Your task to perform on an android device: Go to Reddit.com Image 0: 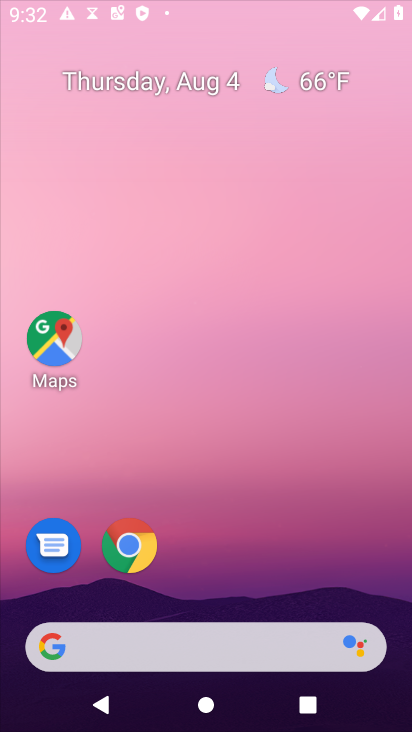
Step 0: press home button
Your task to perform on an android device: Go to Reddit.com Image 1: 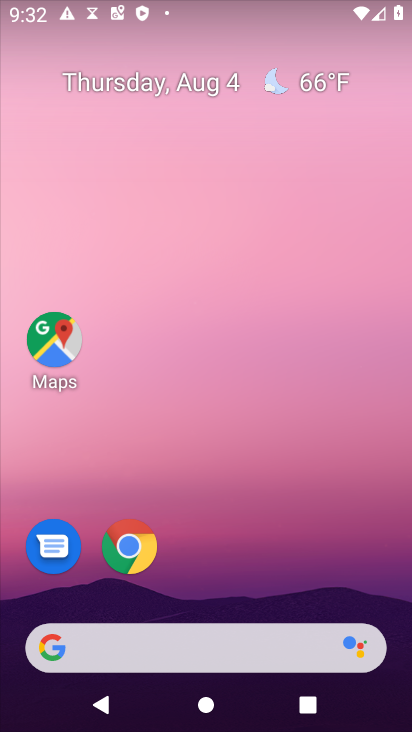
Step 1: click (42, 656)
Your task to perform on an android device: Go to Reddit.com Image 2: 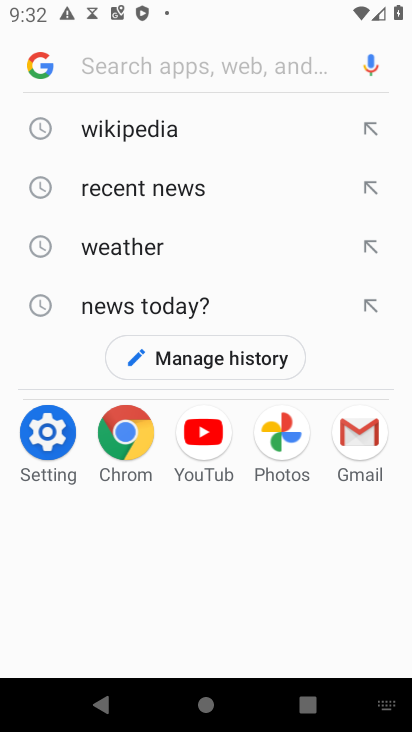
Step 2: type "Reddit.com"
Your task to perform on an android device: Go to Reddit.com Image 3: 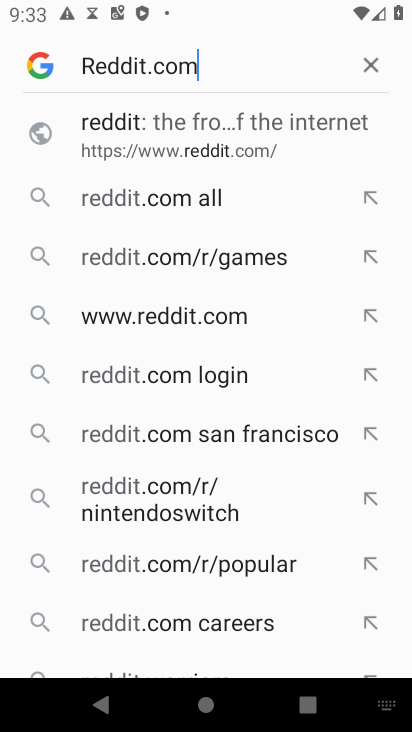
Step 3: press enter
Your task to perform on an android device: Go to Reddit.com Image 4: 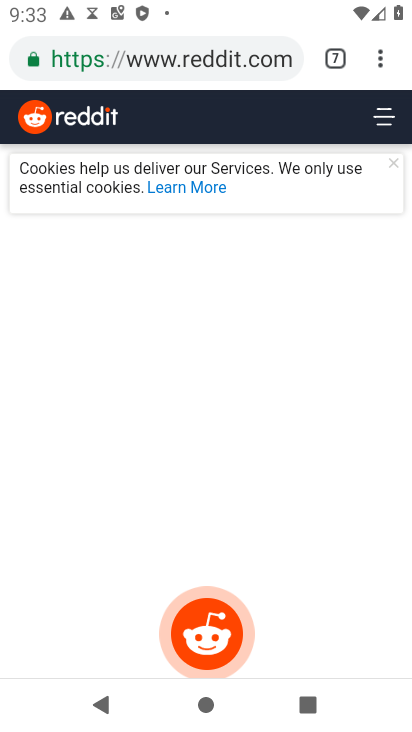
Step 4: task complete